Your task to perform on an android device: Go to Google maps Image 0: 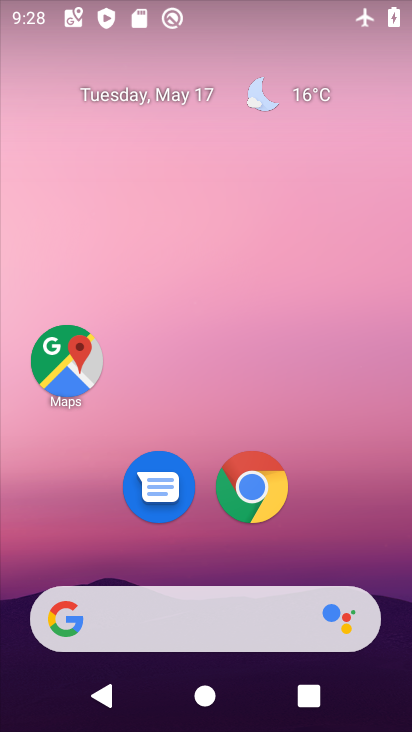
Step 0: click (56, 352)
Your task to perform on an android device: Go to Google maps Image 1: 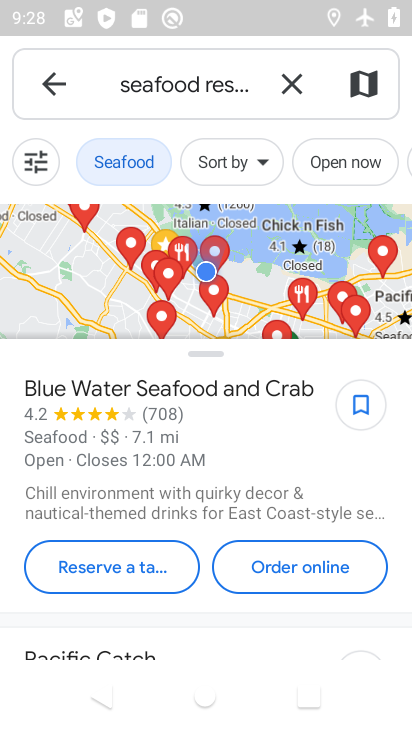
Step 1: click (57, 76)
Your task to perform on an android device: Go to Google maps Image 2: 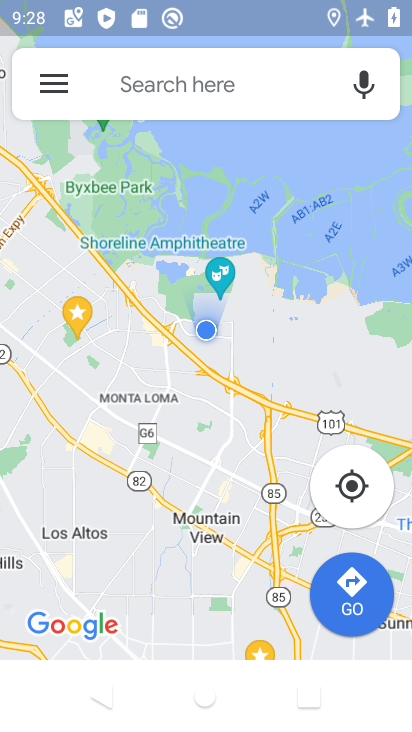
Step 2: task complete